Your task to perform on an android device: turn on data saver in the chrome app Image 0: 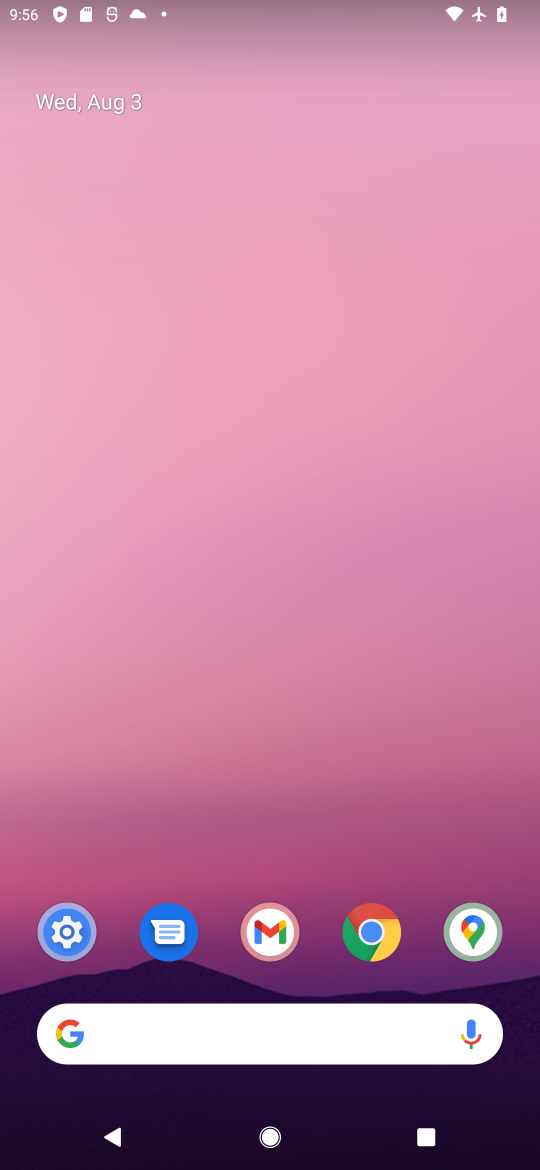
Step 0: click (379, 930)
Your task to perform on an android device: turn on data saver in the chrome app Image 1: 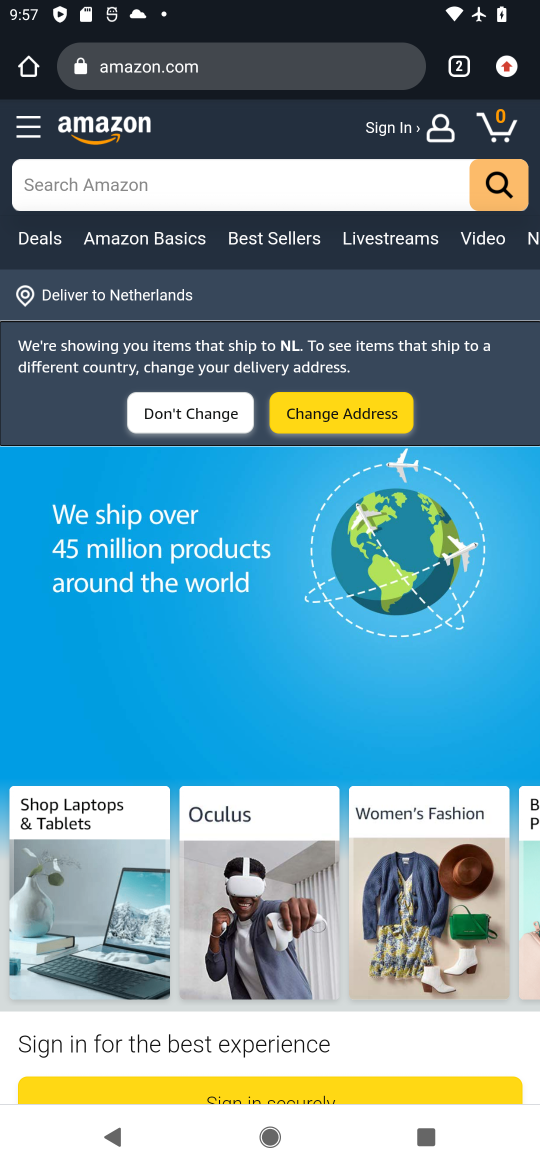
Step 1: click (500, 68)
Your task to perform on an android device: turn on data saver in the chrome app Image 2: 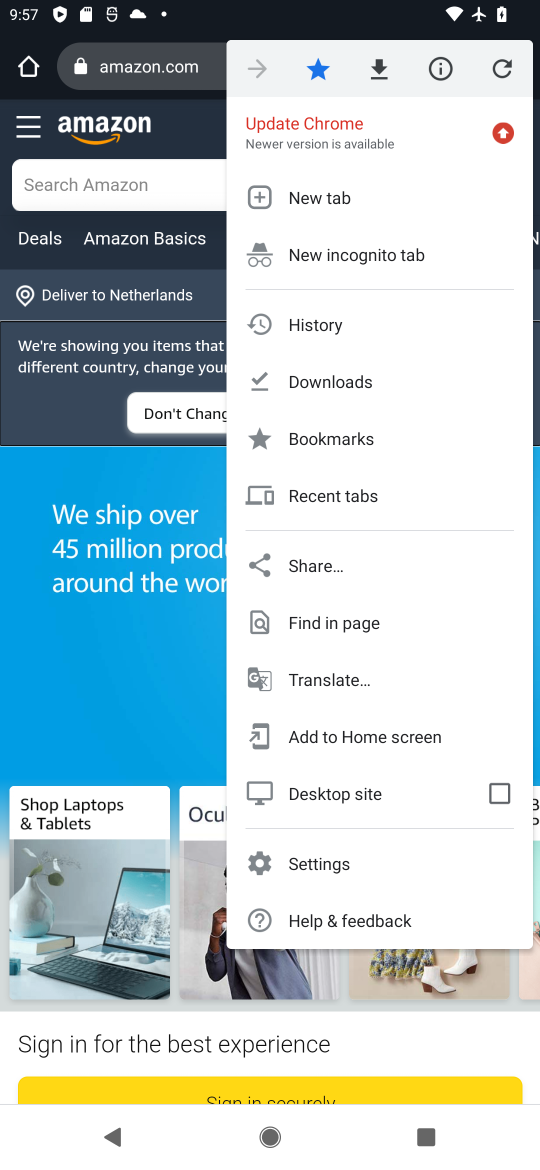
Step 2: click (371, 876)
Your task to perform on an android device: turn on data saver in the chrome app Image 3: 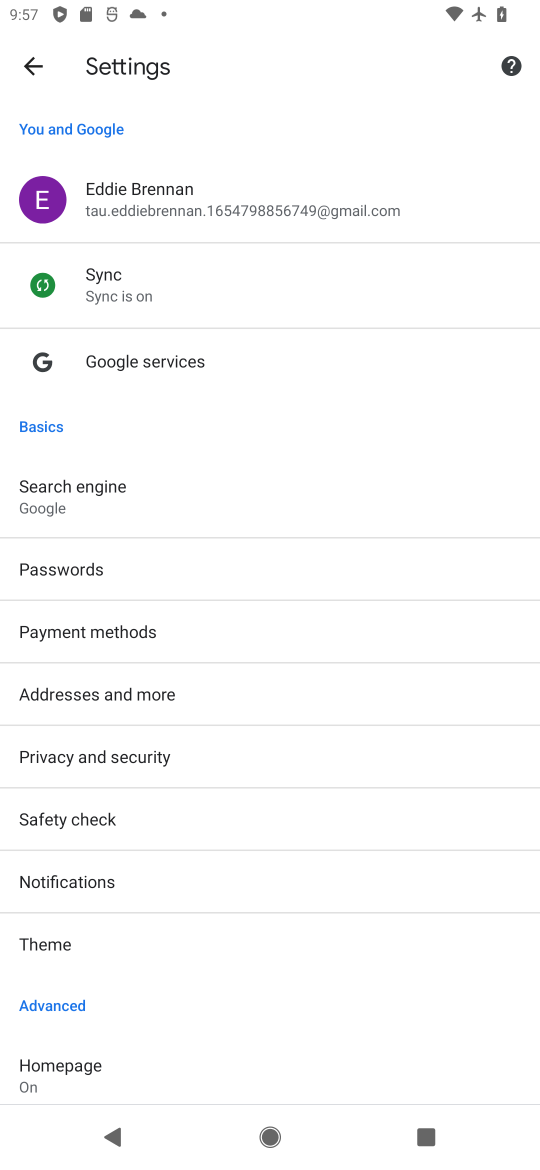
Step 3: drag from (208, 1019) to (162, 331)
Your task to perform on an android device: turn on data saver in the chrome app Image 4: 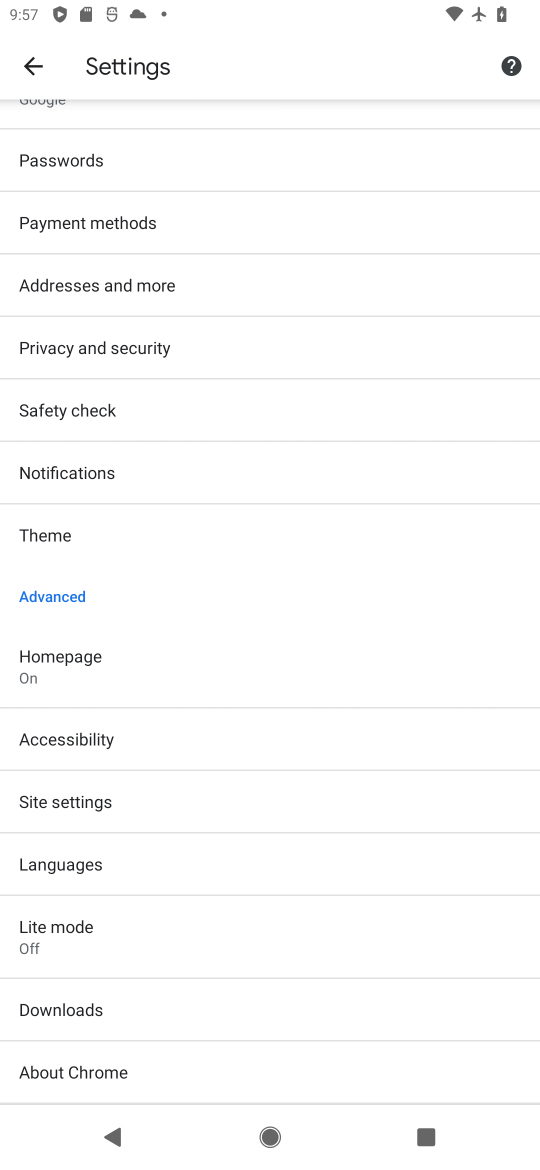
Step 4: click (117, 934)
Your task to perform on an android device: turn on data saver in the chrome app Image 5: 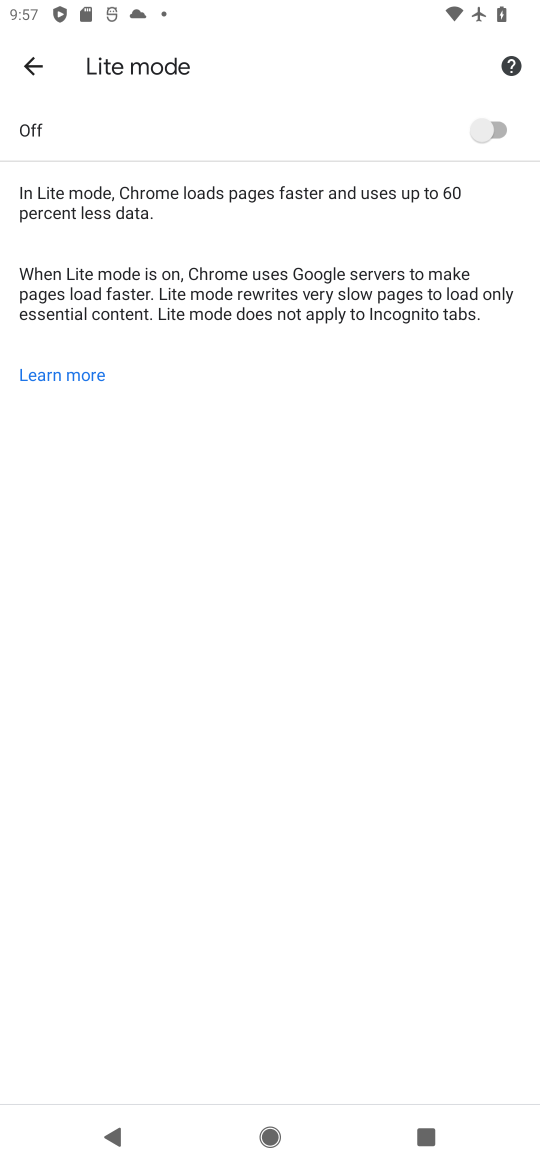
Step 5: click (501, 131)
Your task to perform on an android device: turn on data saver in the chrome app Image 6: 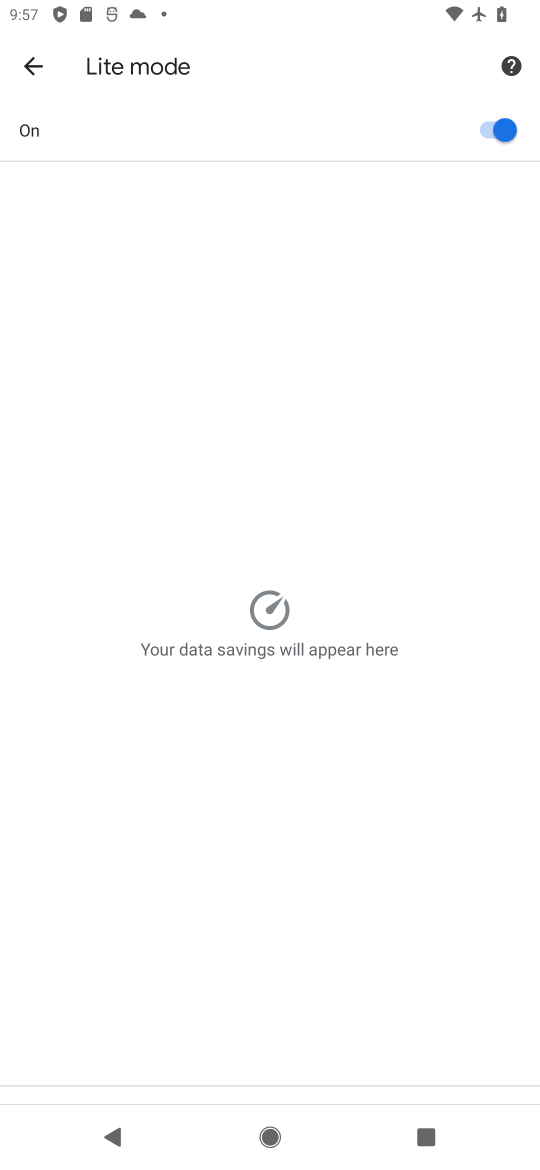
Step 6: task complete